Your task to perform on an android device: check android version Image 0: 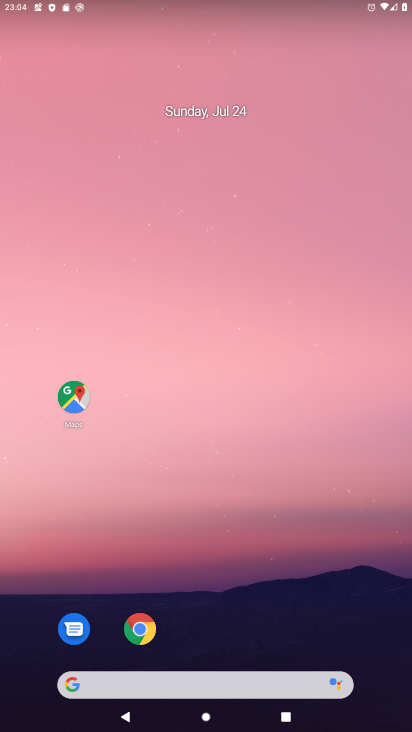
Step 0: click (355, 58)
Your task to perform on an android device: check android version Image 1: 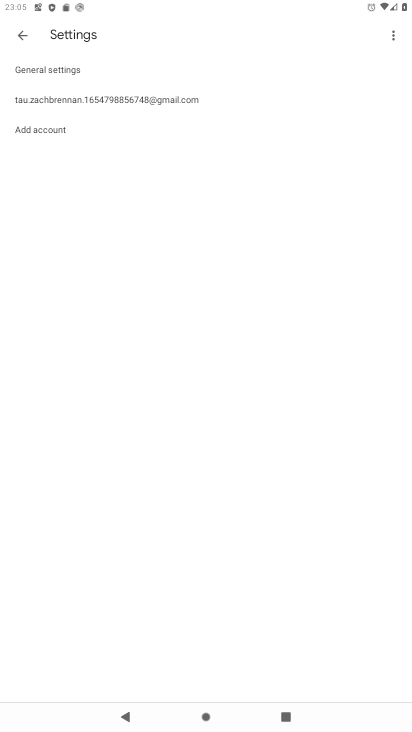
Step 1: click (19, 25)
Your task to perform on an android device: check android version Image 2: 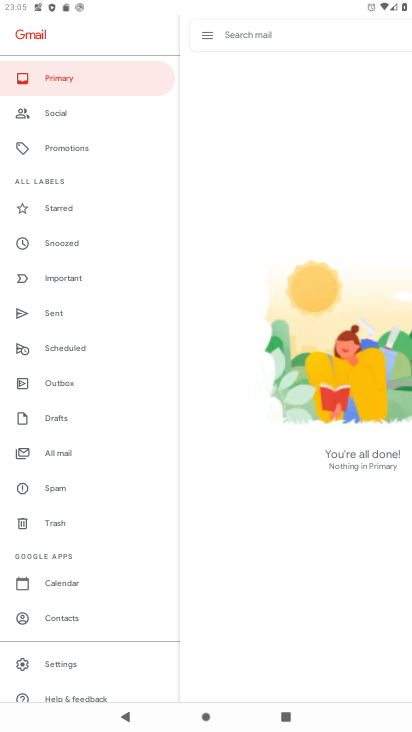
Step 2: press home button
Your task to perform on an android device: check android version Image 3: 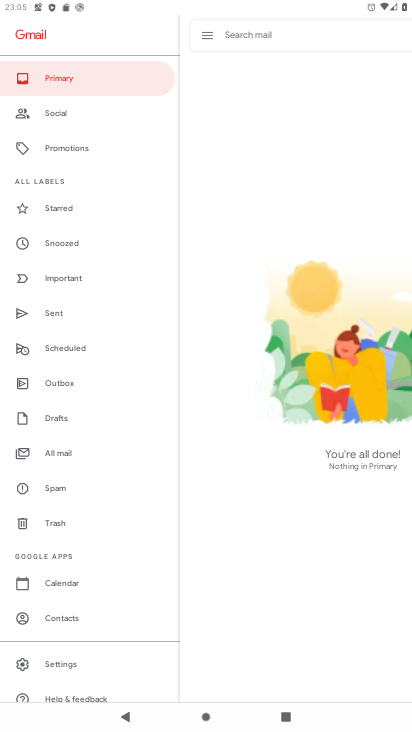
Step 3: press home button
Your task to perform on an android device: check android version Image 4: 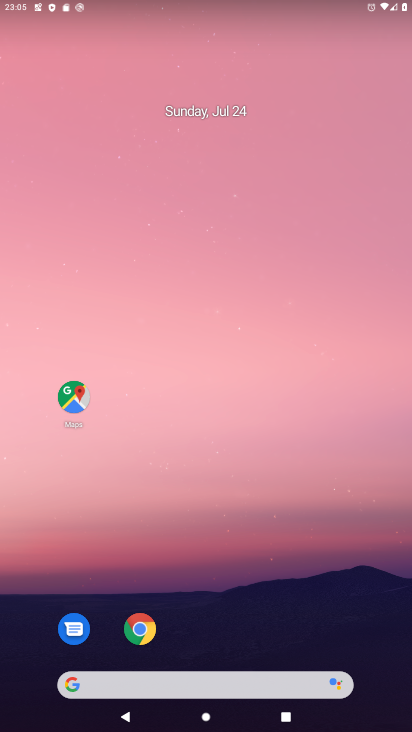
Step 4: drag from (178, 641) to (255, 75)
Your task to perform on an android device: check android version Image 5: 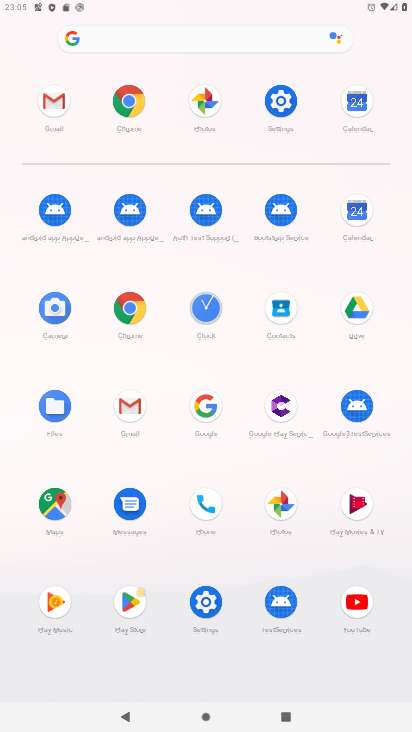
Step 5: click (206, 596)
Your task to perform on an android device: check android version Image 6: 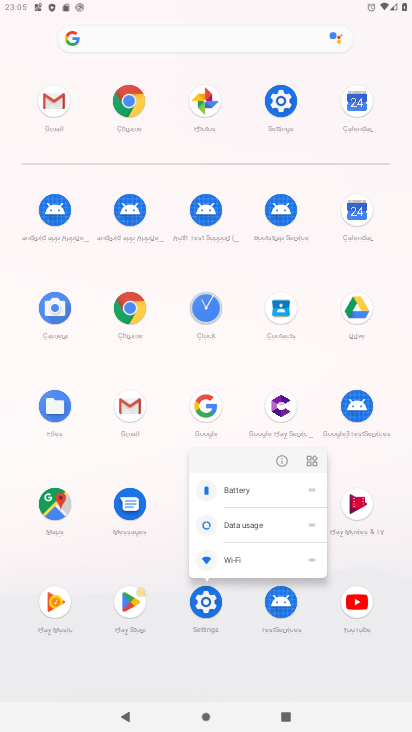
Step 6: click (279, 462)
Your task to perform on an android device: check android version Image 7: 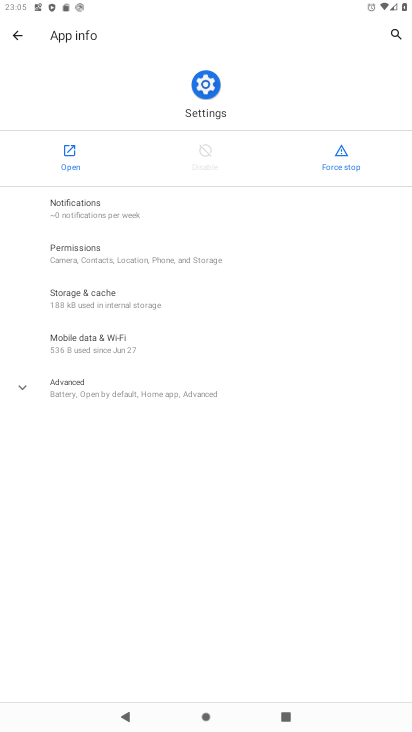
Step 7: click (62, 158)
Your task to perform on an android device: check android version Image 8: 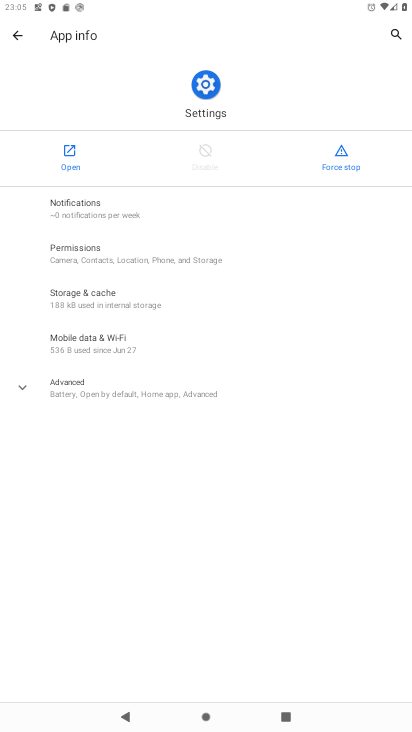
Step 8: click (62, 158)
Your task to perform on an android device: check android version Image 9: 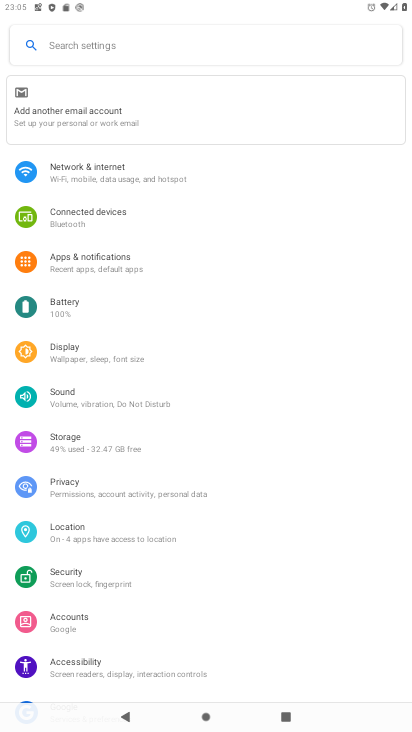
Step 9: drag from (121, 666) to (235, 159)
Your task to perform on an android device: check android version Image 10: 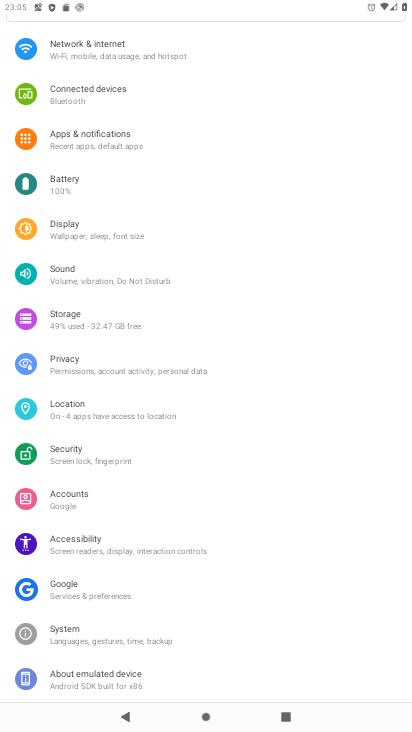
Step 10: click (111, 674)
Your task to perform on an android device: check android version Image 11: 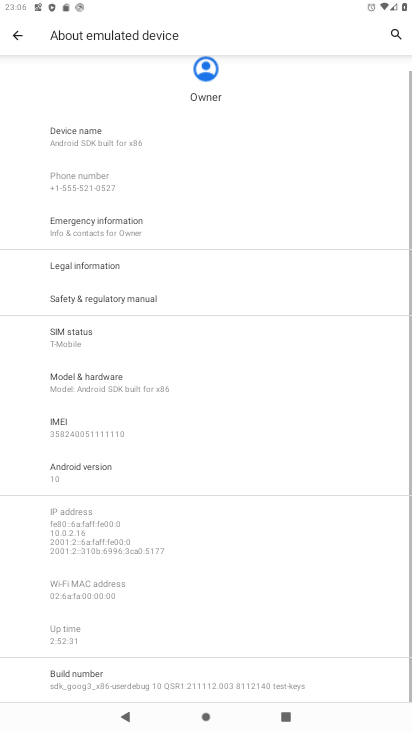
Step 11: click (132, 471)
Your task to perform on an android device: check android version Image 12: 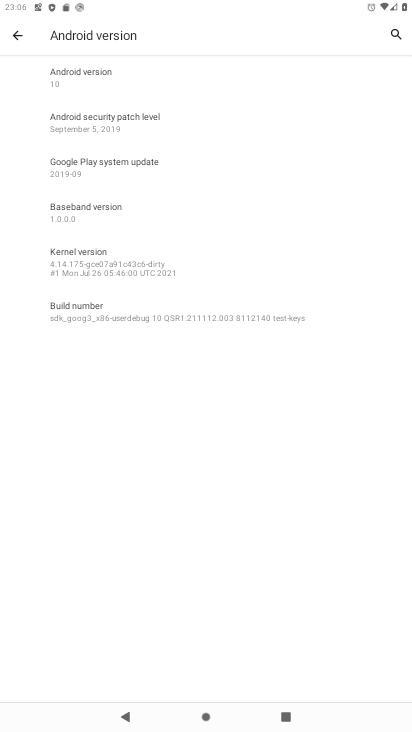
Step 12: drag from (205, 557) to (277, 219)
Your task to perform on an android device: check android version Image 13: 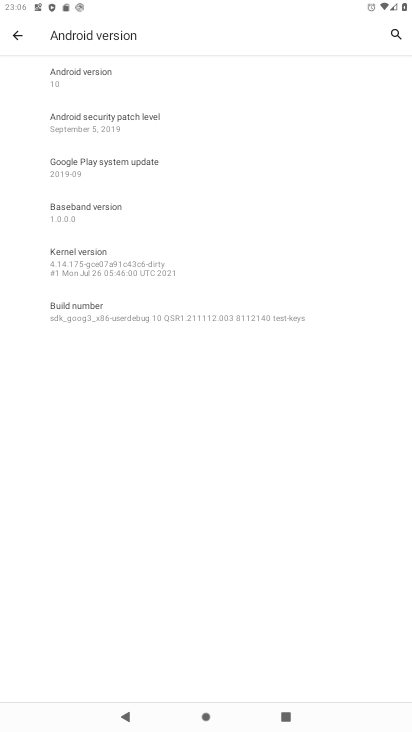
Step 13: click (104, 86)
Your task to perform on an android device: check android version Image 14: 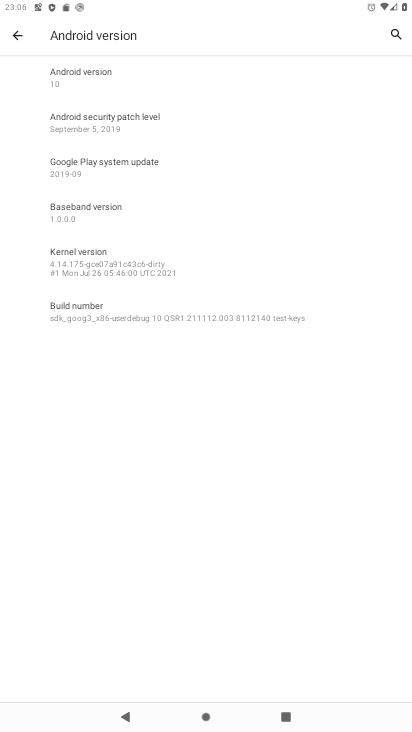
Step 14: task complete